Your task to perform on an android device: turn off wifi Image 0: 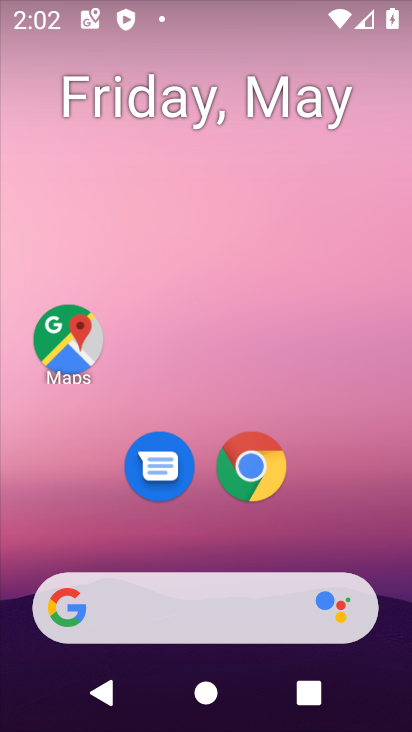
Step 0: drag from (210, 2) to (181, 505)
Your task to perform on an android device: turn off wifi Image 1: 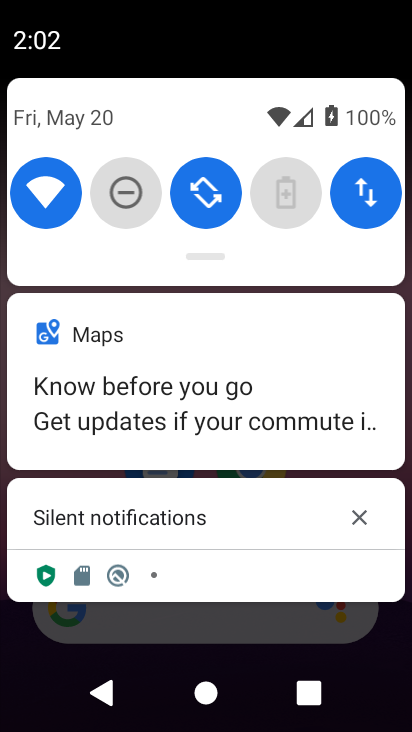
Step 1: drag from (126, 248) to (87, 634)
Your task to perform on an android device: turn off wifi Image 2: 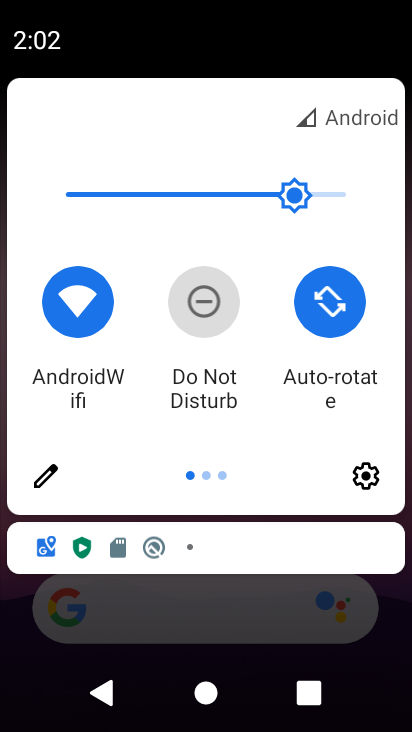
Step 2: click (74, 309)
Your task to perform on an android device: turn off wifi Image 3: 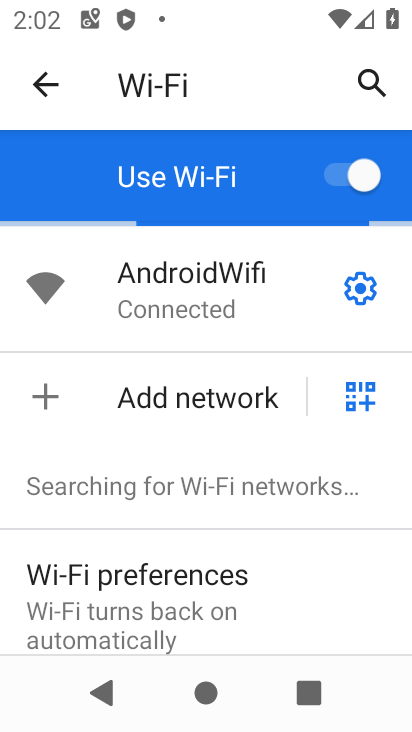
Step 3: click (351, 183)
Your task to perform on an android device: turn off wifi Image 4: 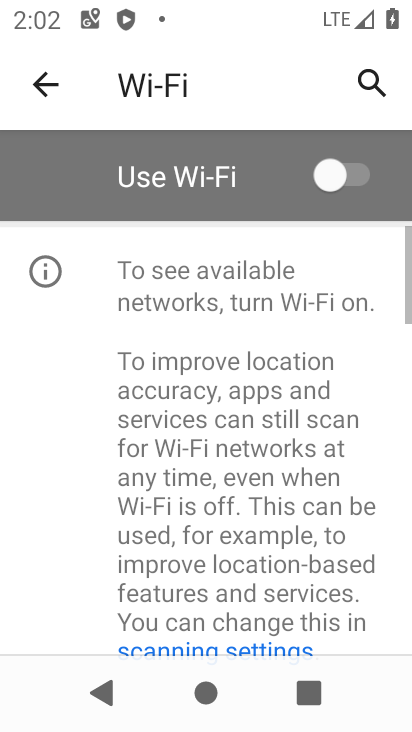
Step 4: task complete